Your task to perform on an android device: Add "usb-a to usb-b" to the cart on newegg Image 0: 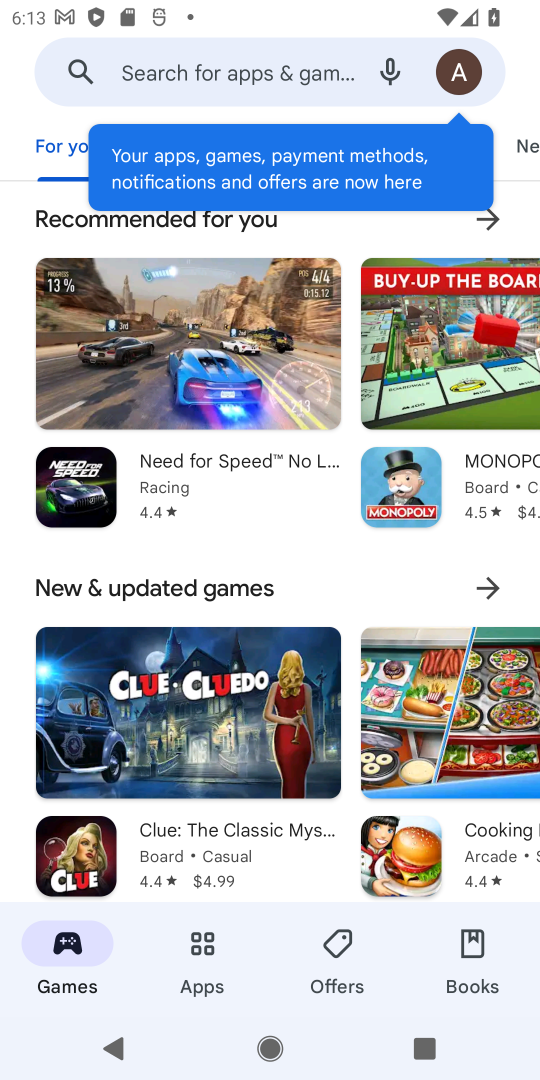
Step 0: press home button
Your task to perform on an android device: Add "usb-a to usb-b" to the cart on newegg Image 1: 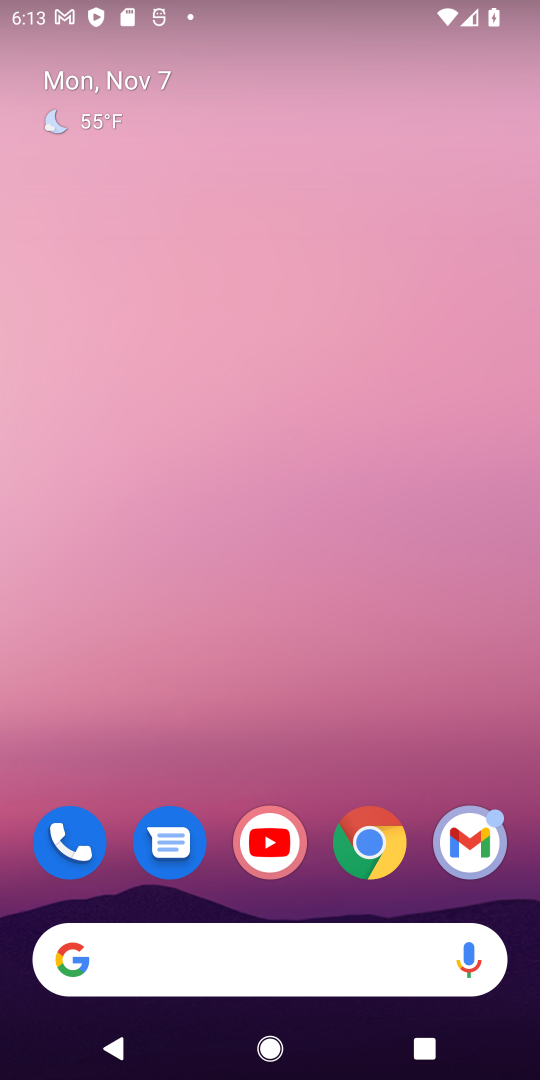
Step 1: click (372, 845)
Your task to perform on an android device: Add "usb-a to usb-b" to the cart on newegg Image 2: 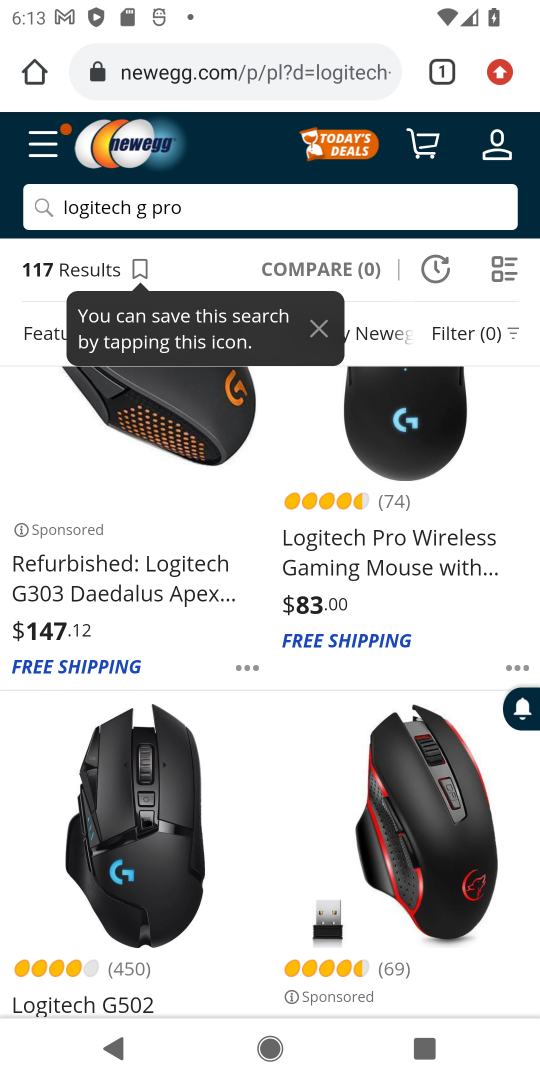
Step 2: click (321, 209)
Your task to perform on an android device: Add "usb-a to usb-b" to the cart on newegg Image 3: 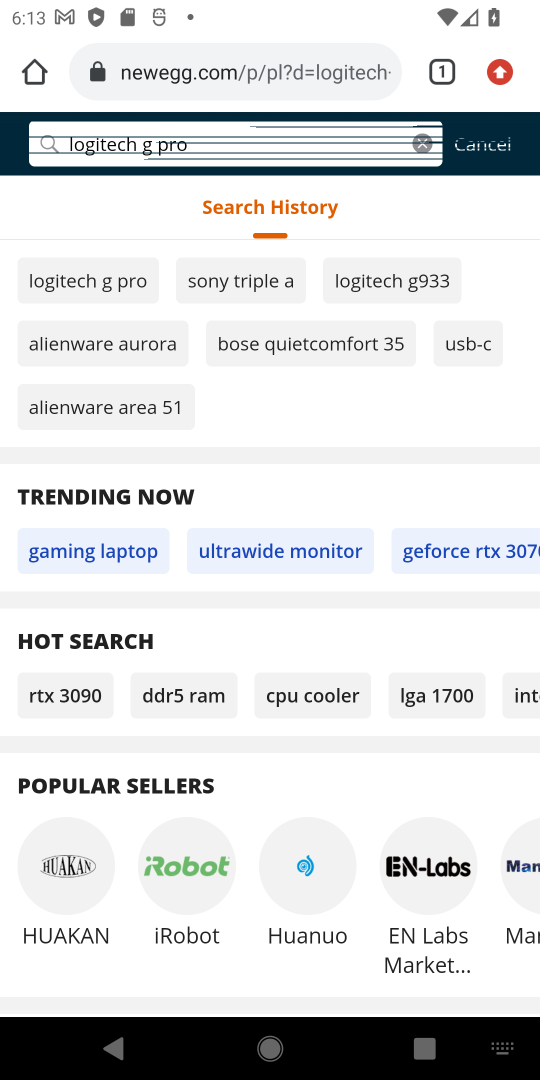
Step 3: click (425, 141)
Your task to perform on an android device: Add "usb-a to usb-b" to the cart on newegg Image 4: 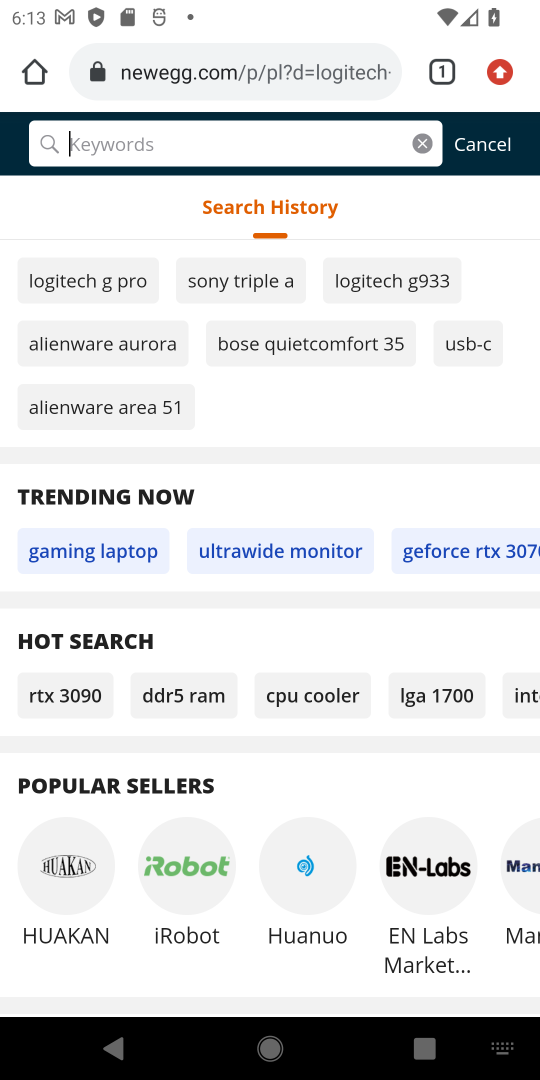
Step 4: type "usb-a to usb-b"
Your task to perform on an android device: Add "usb-a to usb-b" to the cart on newegg Image 5: 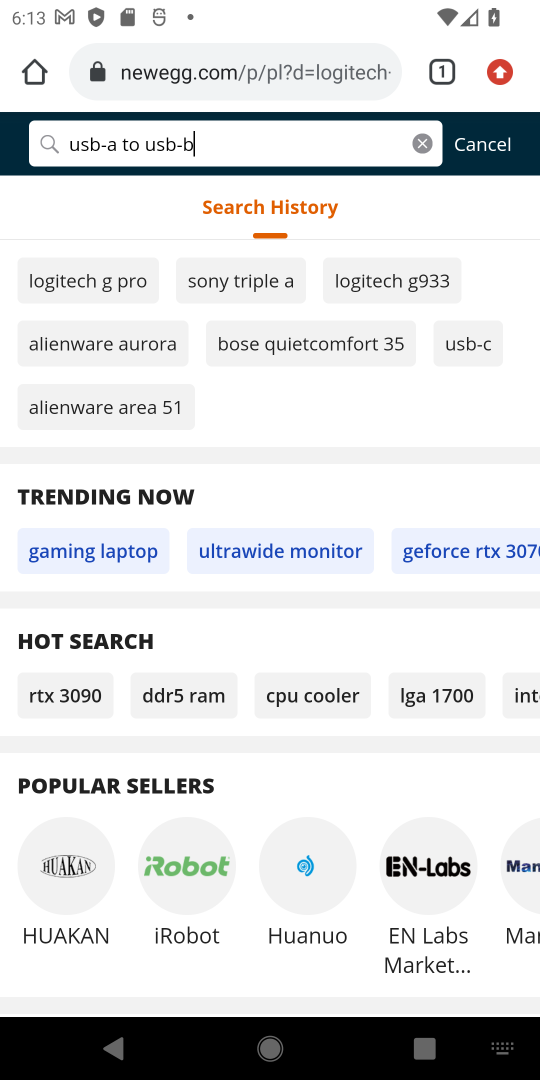
Step 5: press enter
Your task to perform on an android device: Add "usb-a to usb-b" to the cart on newegg Image 6: 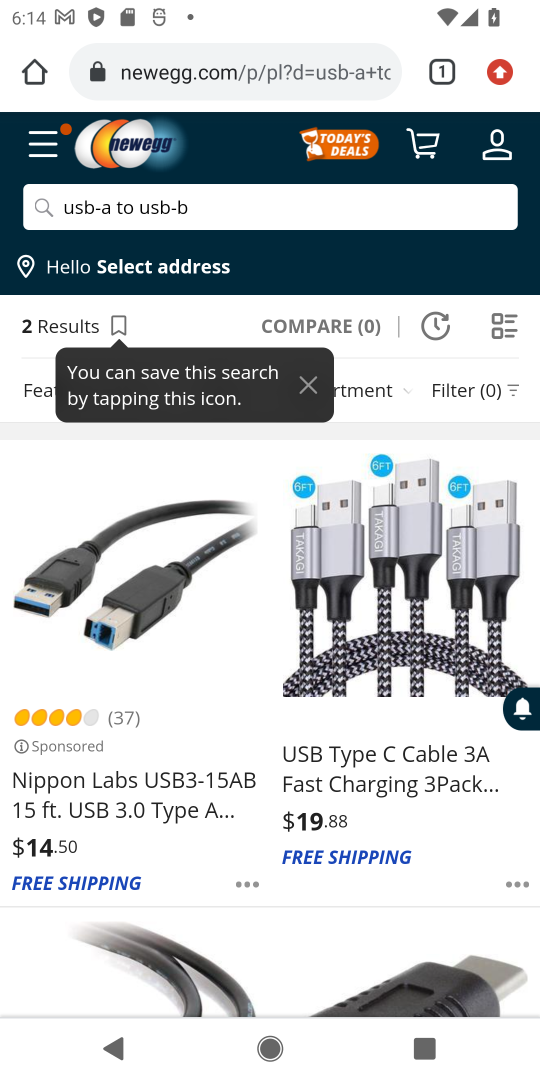
Step 6: drag from (237, 905) to (489, 360)
Your task to perform on an android device: Add "usb-a to usb-b" to the cart on newegg Image 7: 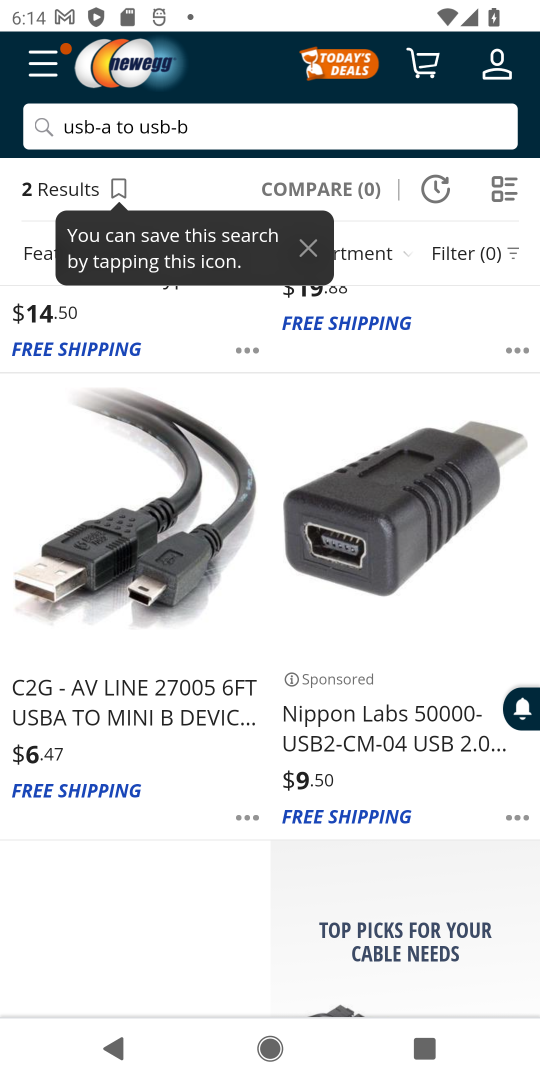
Step 7: click (87, 695)
Your task to perform on an android device: Add "usb-a to usb-b" to the cart on newegg Image 8: 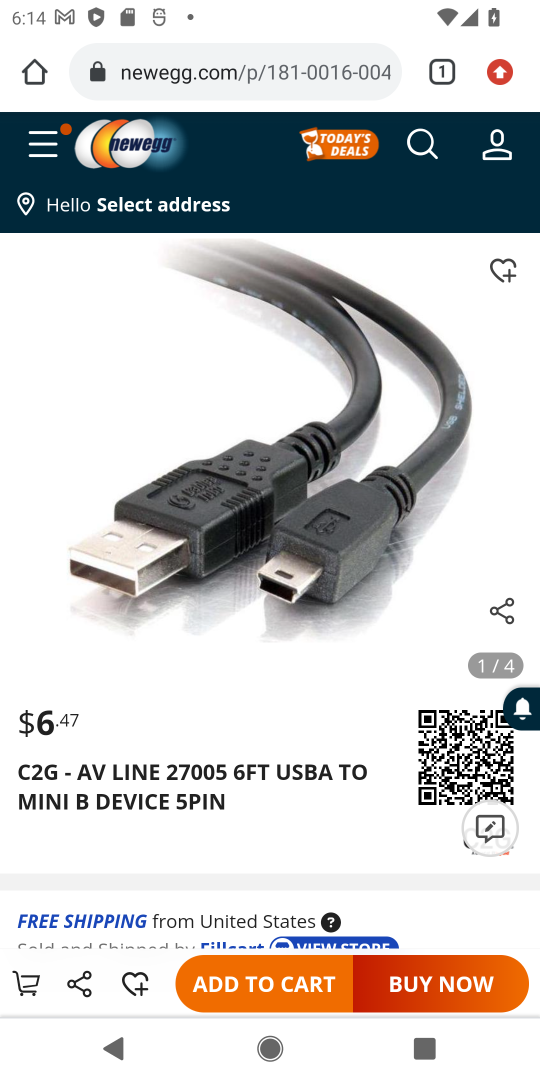
Step 8: drag from (243, 856) to (307, 506)
Your task to perform on an android device: Add "usb-a to usb-b" to the cart on newegg Image 9: 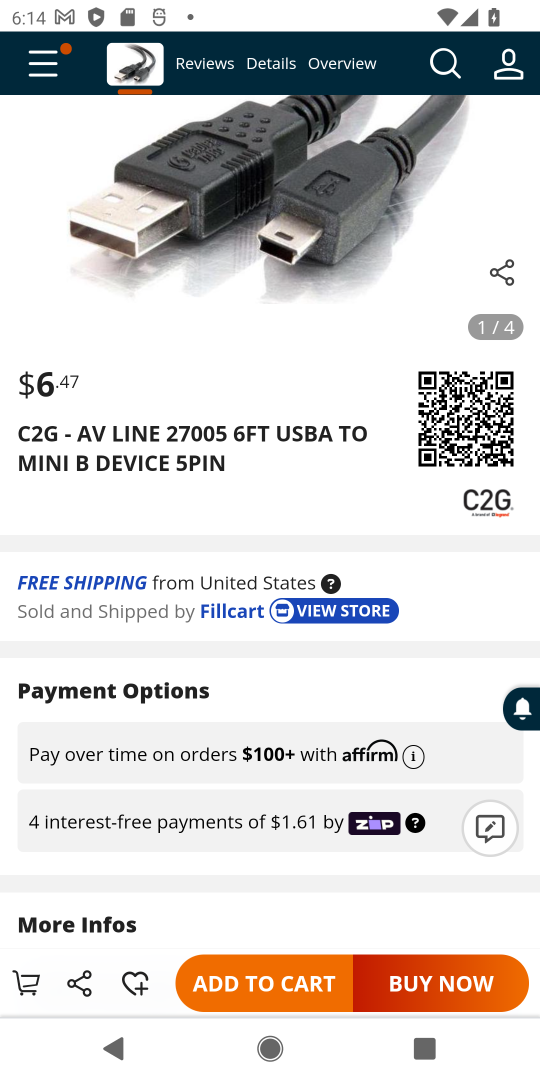
Step 9: click (248, 983)
Your task to perform on an android device: Add "usb-a to usb-b" to the cart on newegg Image 10: 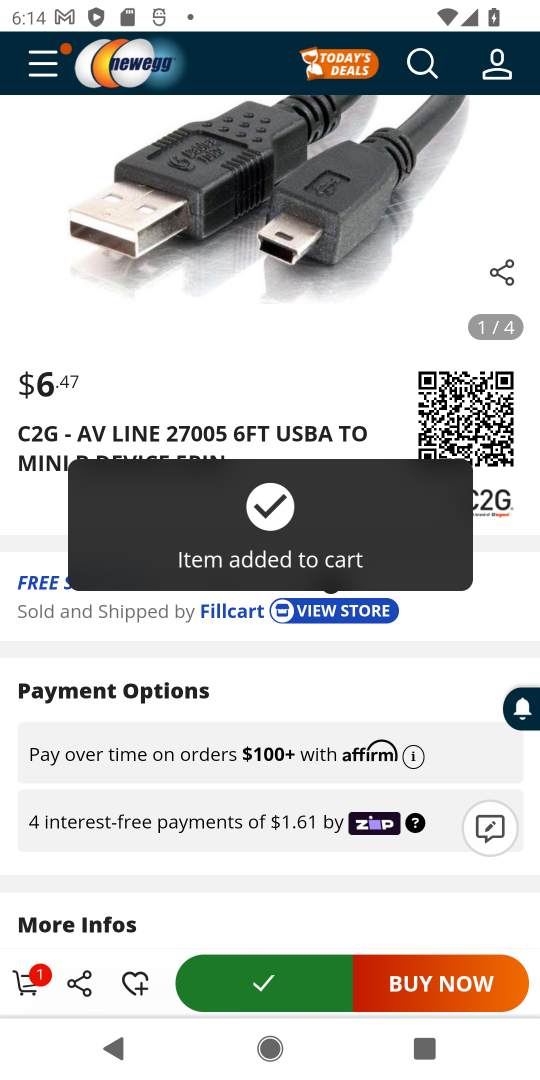
Step 10: click (26, 974)
Your task to perform on an android device: Add "usb-a to usb-b" to the cart on newegg Image 11: 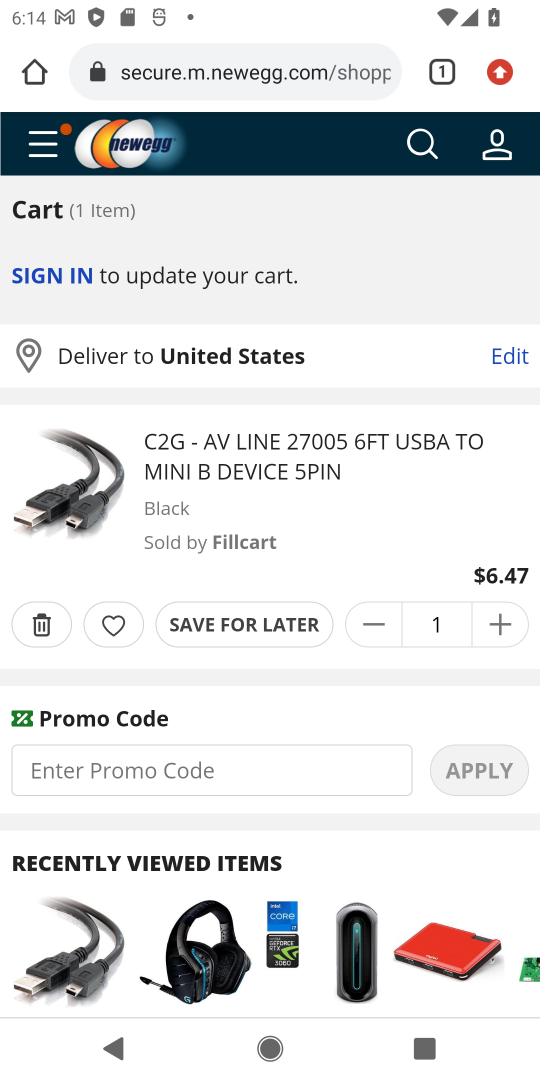
Step 11: task complete